Your task to perform on an android device: Open Amazon Image 0: 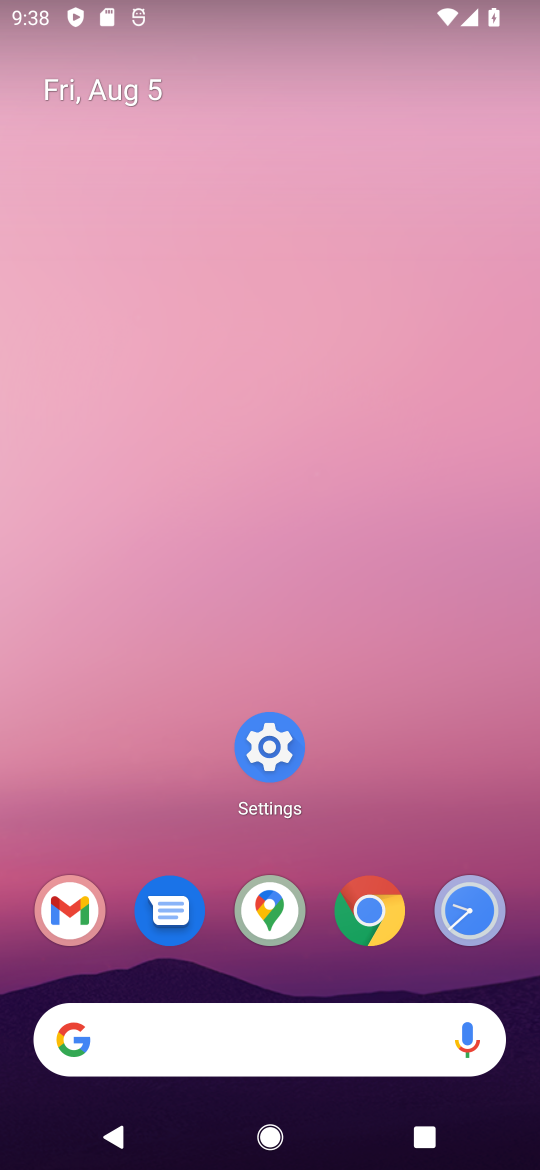
Step 0: press home button
Your task to perform on an android device: Open Amazon Image 1: 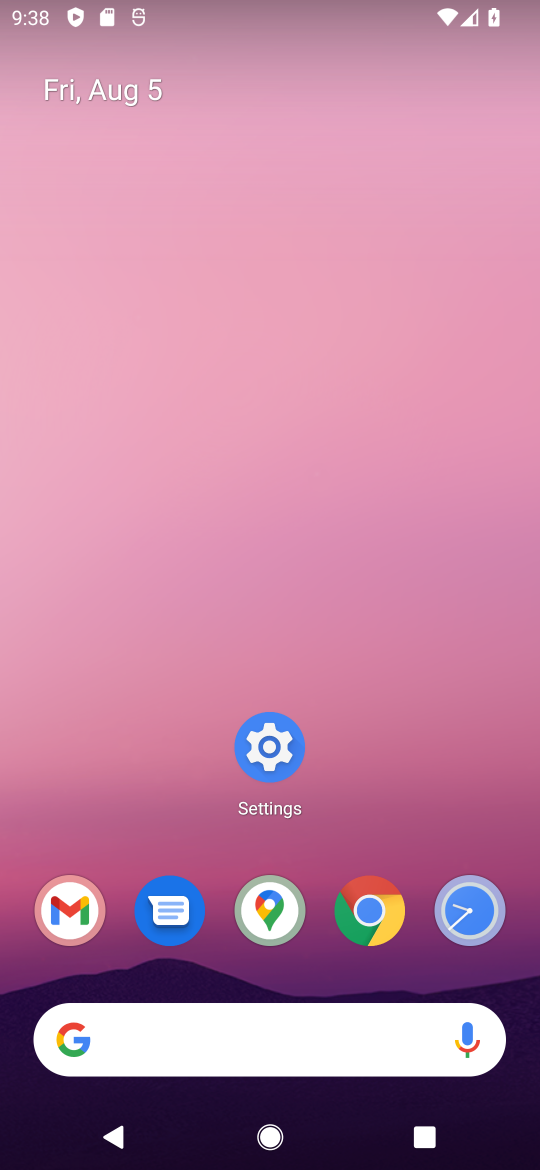
Step 1: click (264, 750)
Your task to perform on an android device: Open Amazon Image 2: 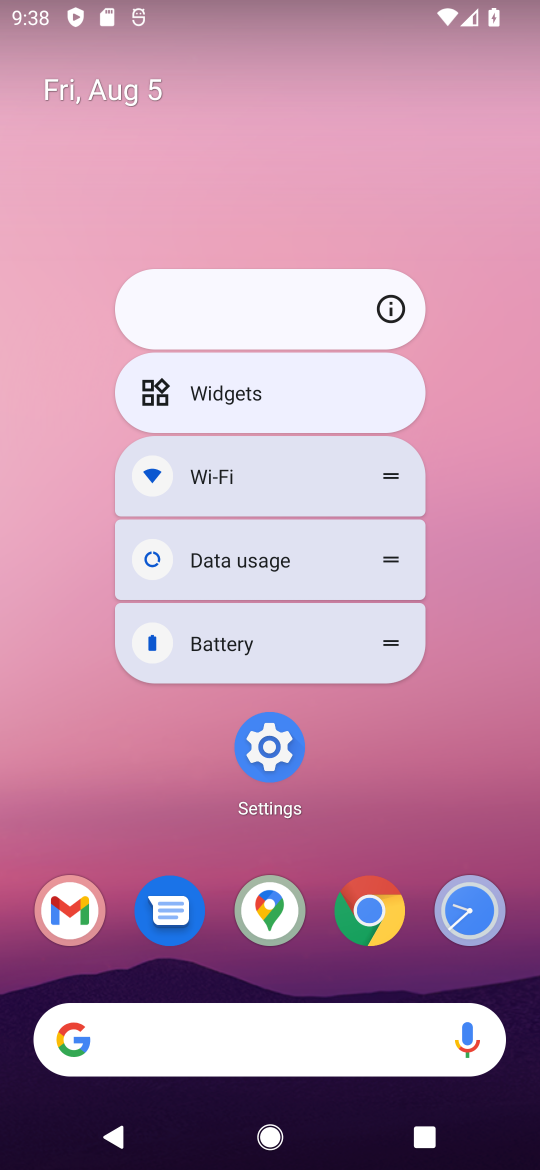
Step 2: click (522, 618)
Your task to perform on an android device: Open Amazon Image 3: 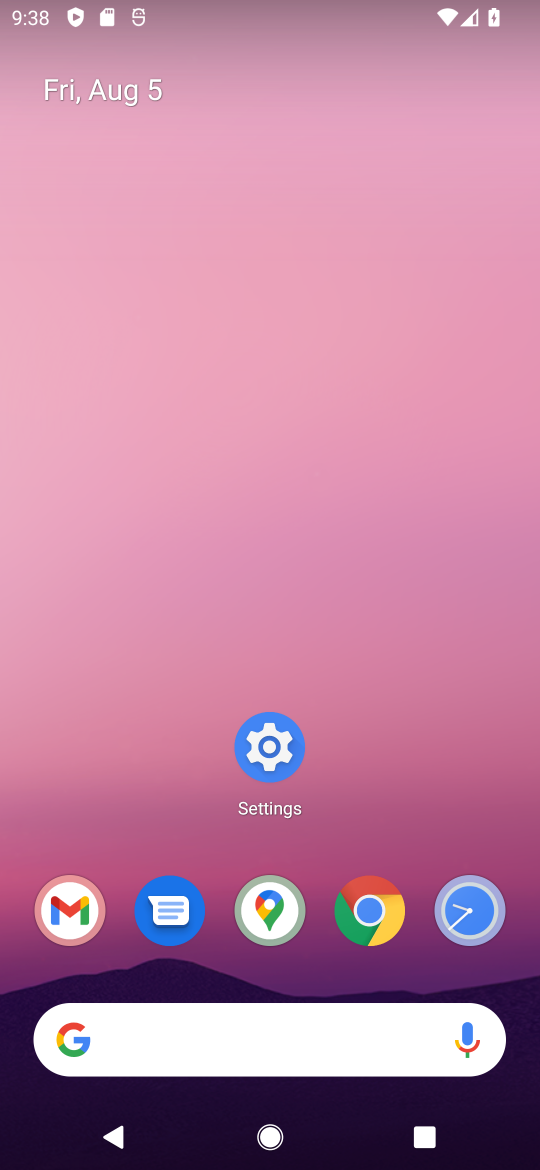
Step 3: click (374, 915)
Your task to perform on an android device: Open Amazon Image 4: 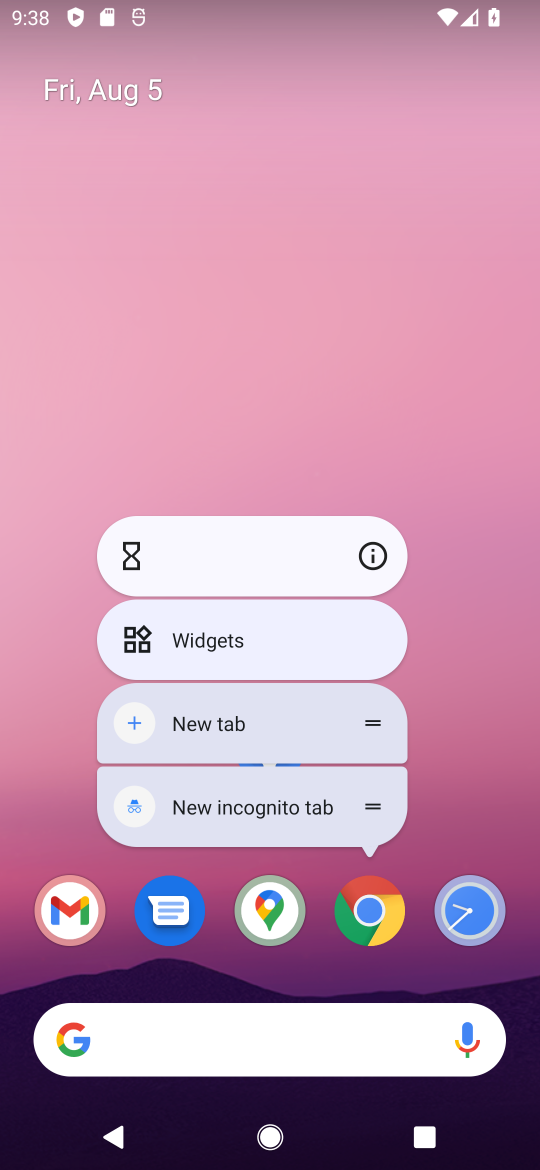
Step 4: click (382, 908)
Your task to perform on an android device: Open Amazon Image 5: 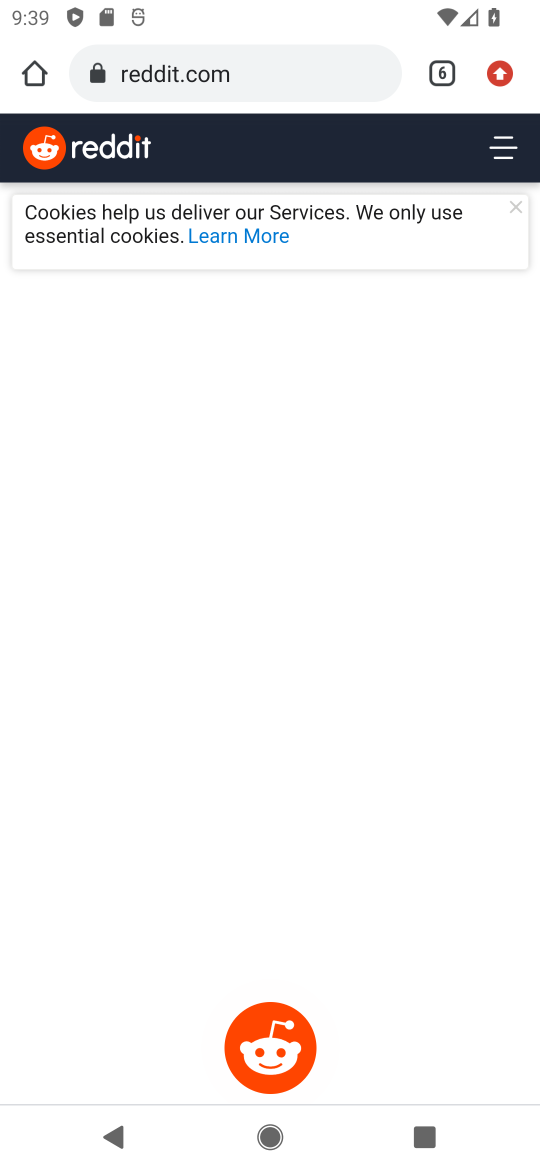
Step 5: drag from (501, 66) to (334, 247)
Your task to perform on an android device: Open Amazon Image 6: 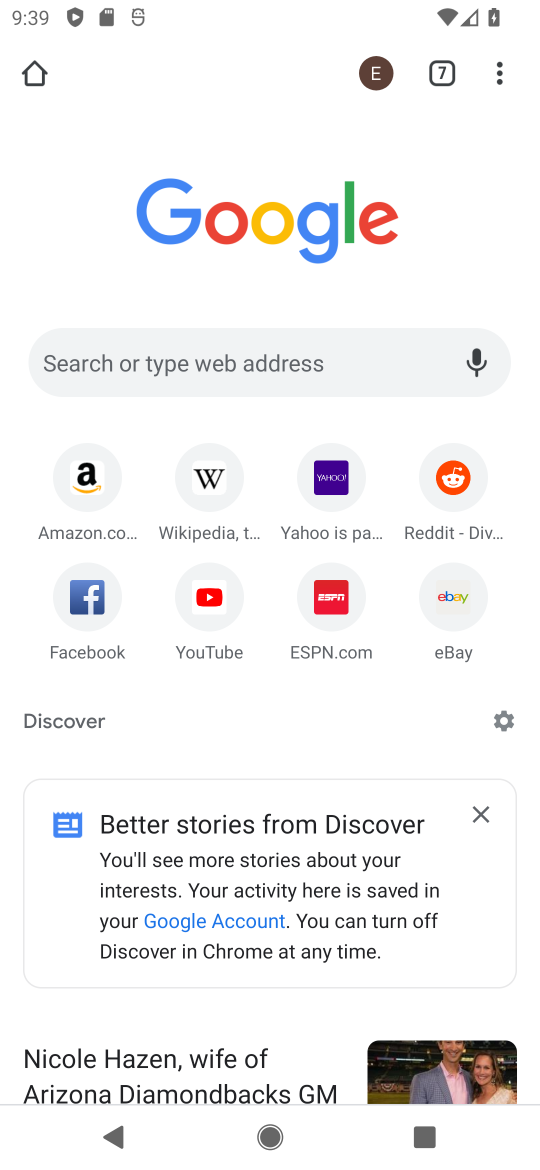
Step 6: click (86, 465)
Your task to perform on an android device: Open Amazon Image 7: 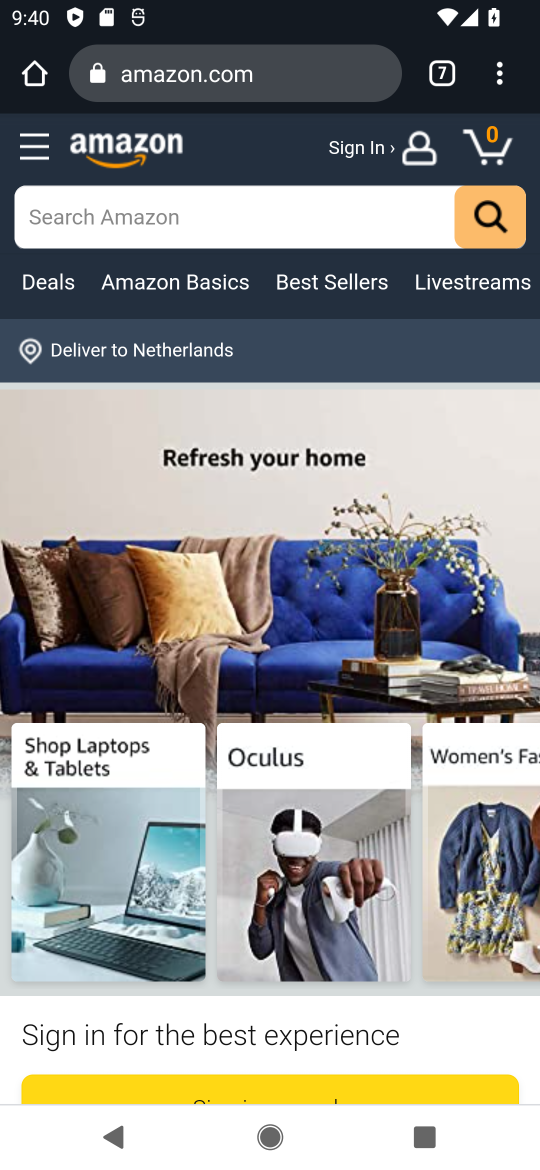
Step 7: task complete